Your task to perform on an android device: toggle improve location accuracy Image 0: 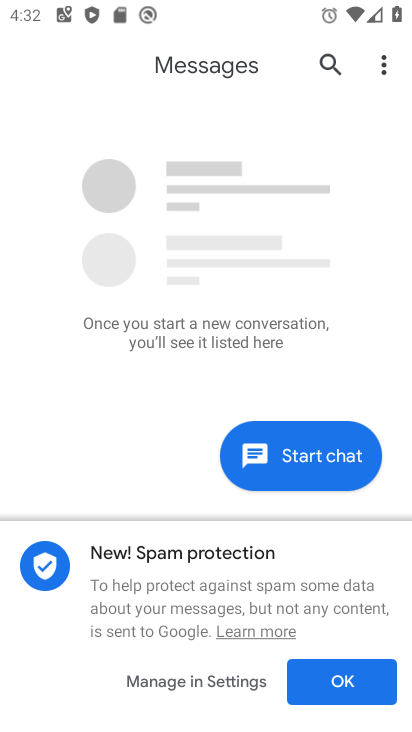
Step 0: press home button
Your task to perform on an android device: toggle improve location accuracy Image 1: 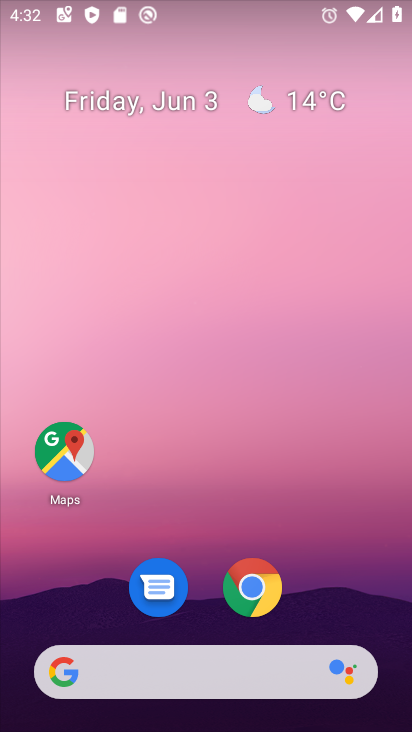
Step 1: drag from (190, 636) to (140, 324)
Your task to perform on an android device: toggle improve location accuracy Image 2: 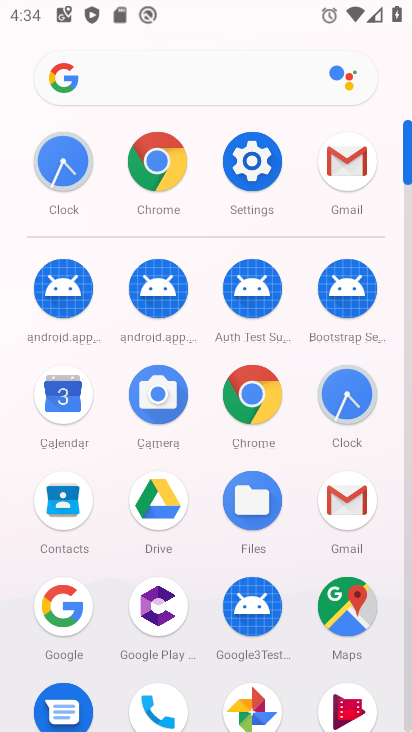
Step 2: click (243, 169)
Your task to perform on an android device: toggle improve location accuracy Image 3: 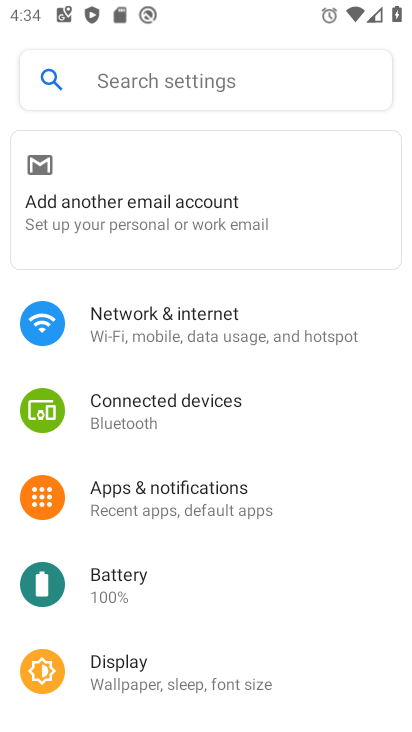
Step 3: drag from (161, 693) to (154, 271)
Your task to perform on an android device: toggle improve location accuracy Image 4: 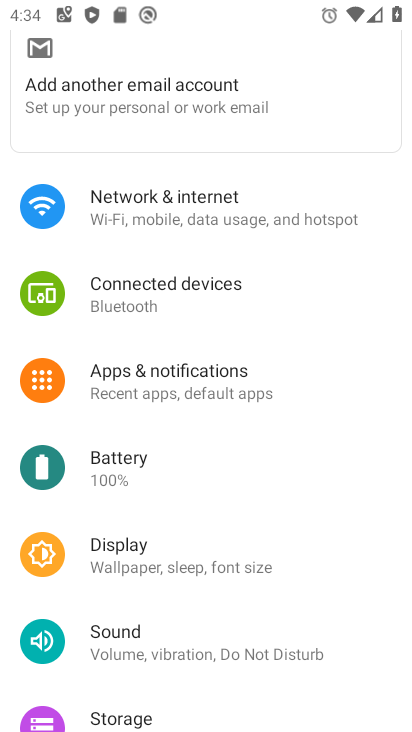
Step 4: drag from (137, 710) to (169, 291)
Your task to perform on an android device: toggle improve location accuracy Image 5: 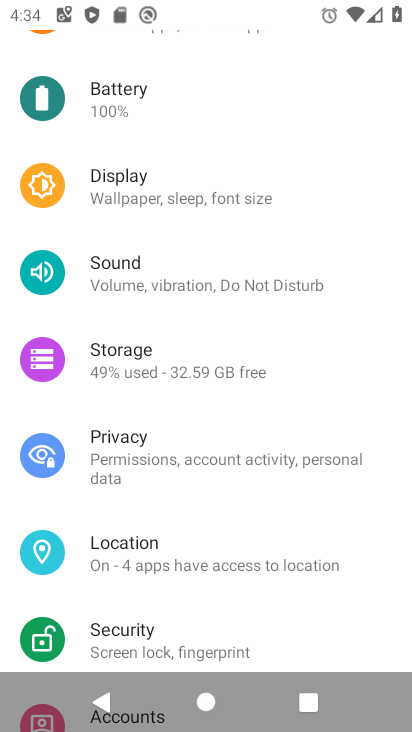
Step 5: click (142, 549)
Your task to perform on an android device: toggle improve location accuracy Image 6: 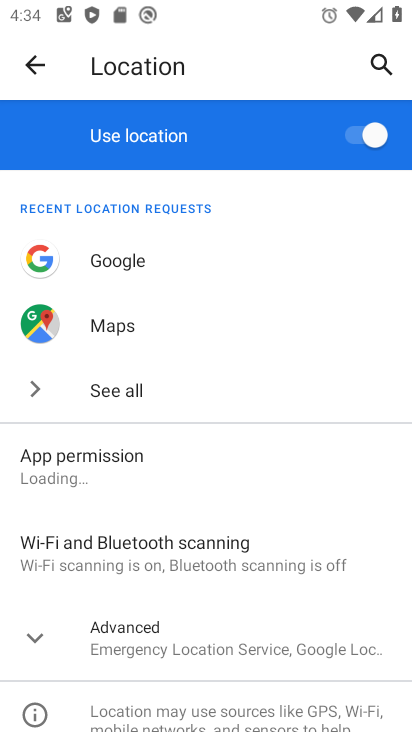
Step 6: click (143, 634)
Your task to perform on an android device: toggle improve location accuracy Image 7: 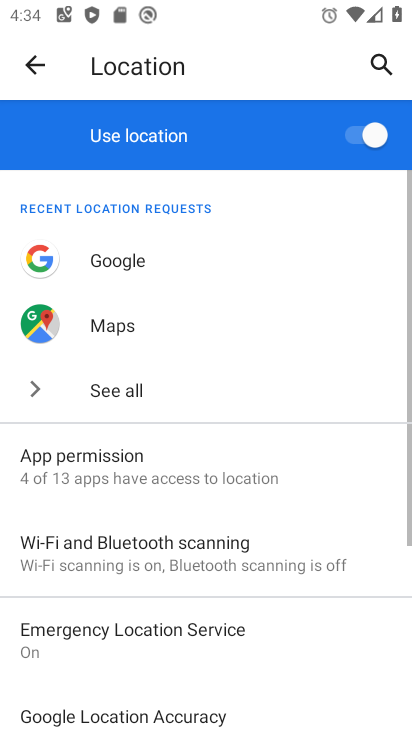
Step 7: drag from (234, 694) to (231, 291)
Your task to perform on an android device: toggle improve location accuracy Image 8: 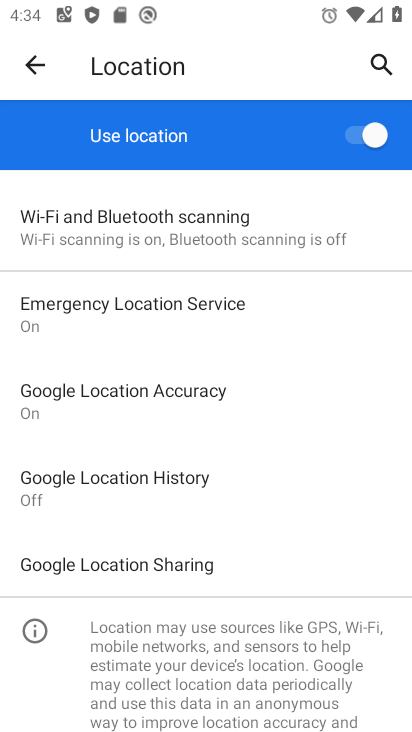
Step 8: click (165, 381)
Your task to perform on an android device: toggle improve location accuracy Image 9: 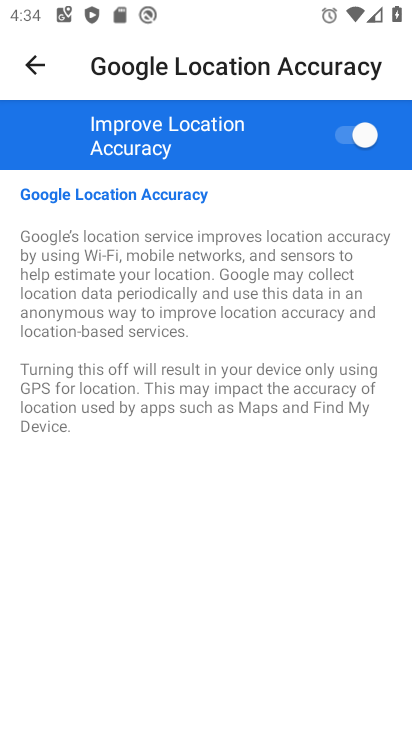
Step 9: click (351, 138)
Your task to perform on an android device: toggle improve location accuracy Image 10: 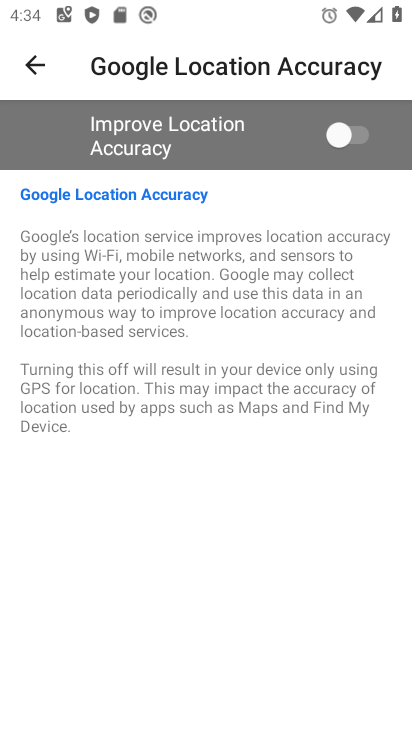
Step 10: task complete